Your task to perform on an android device: Go to Yahoo.com Image 0: 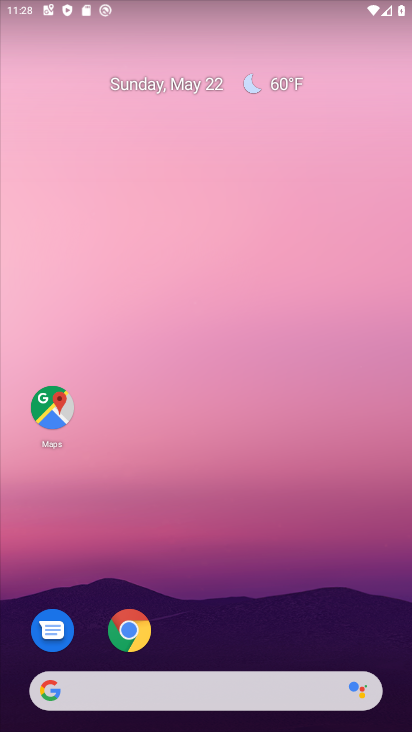
Step 0: click (130, 629)
Your task to perform on an android device: Go to Yahoo.com Image 1: 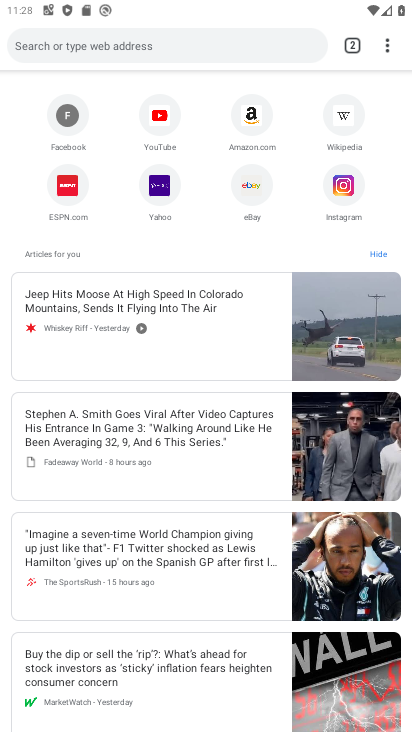
Step 1: click (152, 40)
Your task to perform on an android device: Go to Yahoo.com Image 2: 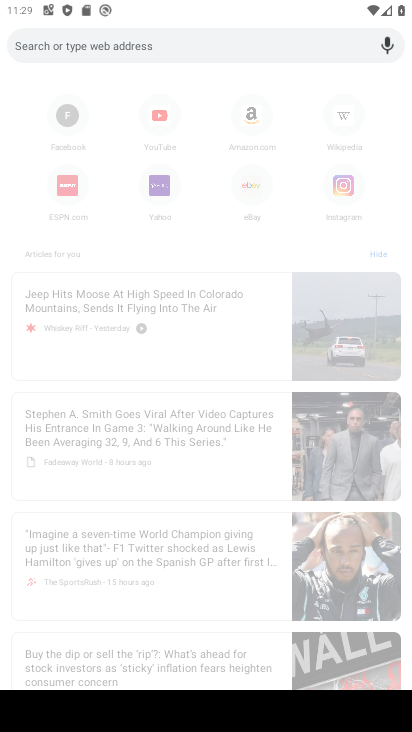
Step 2: type "Yahoo.com"
Your task to perform on an android device: Go to Yahoo.com Image 3: 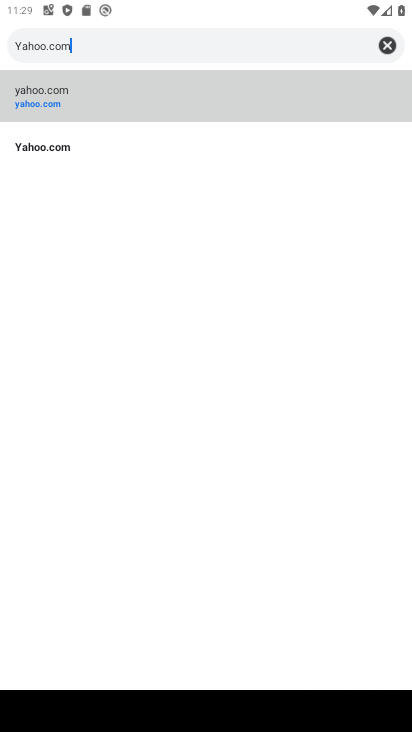
Step 3: type ""
Your task to perform on an android device: Go to Yahoo.com Image 4: 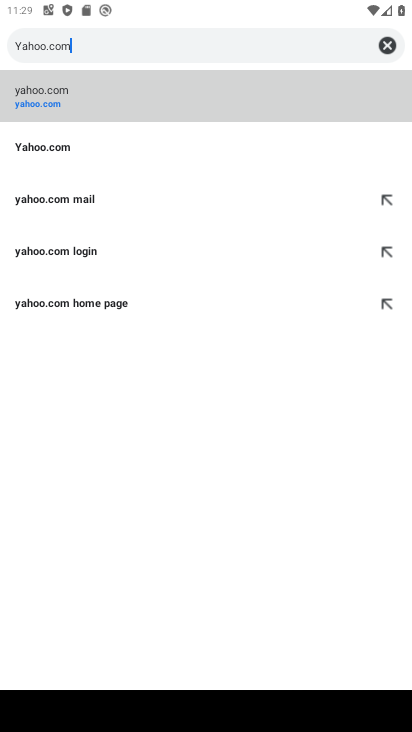
Step 4: click (56, 145)
Your task to perform on an android device: Go to Yahoo.com Image 5: 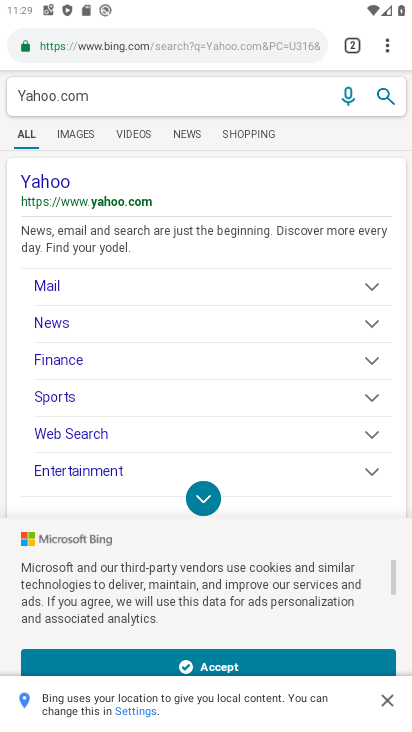
Step 5: click (72, 205)
Your task to perform on an android device: Go to Yahoo.com Image 6: 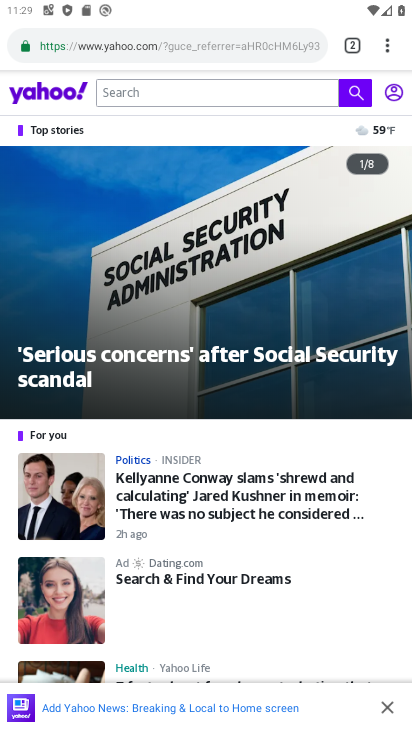
Step 6: task complete